Your task to perform on an android device: turn pop-ups off in chrome Image 0: 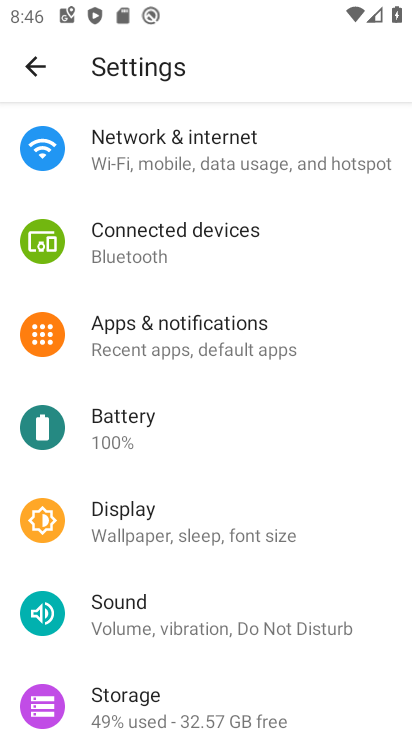
Step 0: press home button
Your task to perform on an android device: turn pop-ups off in chrome Image 1: 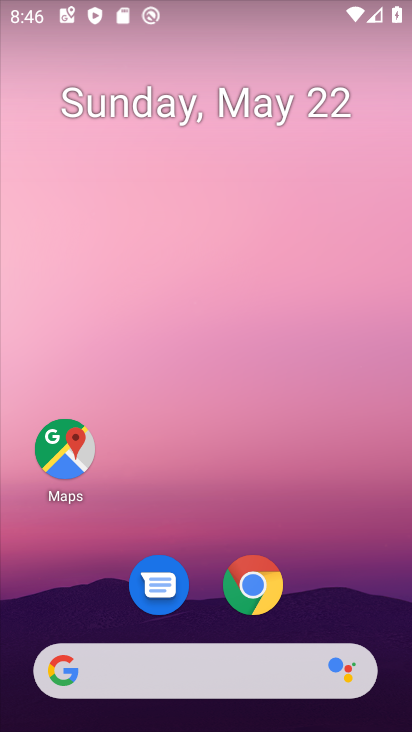
Step 1: click (251, 593)
Your task to perform on an android device: turn pop-ups off in chrome Image 2: 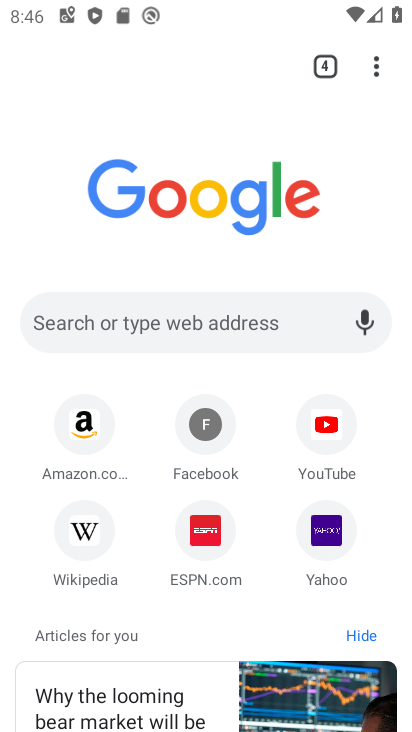
Step 2: click (374, 69)
Your task to perform on an android device: turn pop-ups off in chrome Image 3: 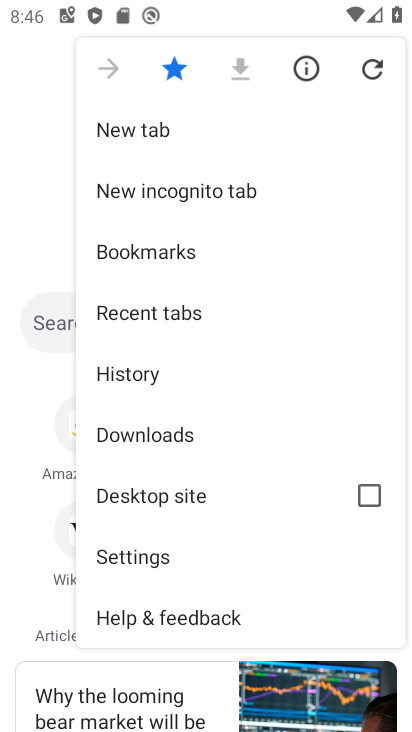
Step 3: click (143, 558)
Your task to perform on an android device: turn pop-ups off in chrome Image 4: 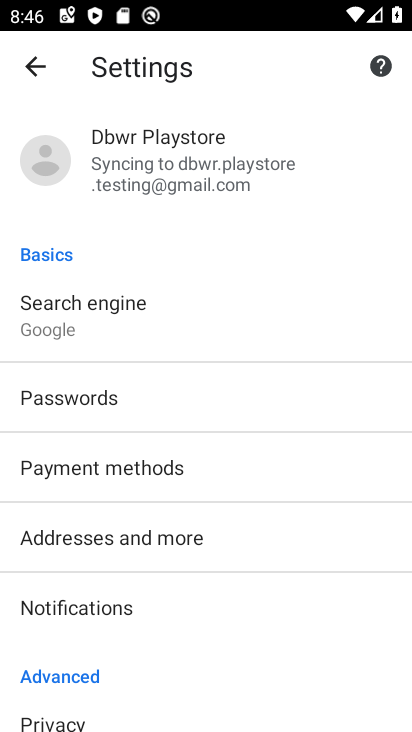
Step 4: drag from (278, 521) to (271, 173)
Your task to perform on an android device: turn pop-ups off in chrome Image 5: 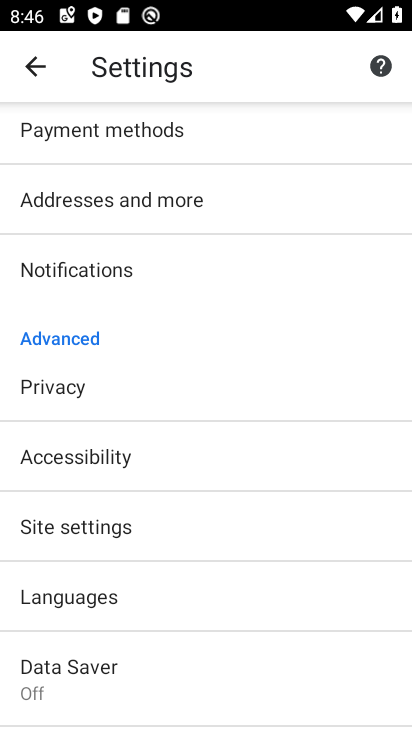
Step 5: click (144, 526)
Your task to perform on an android device: turn pop-ups off in chrome Image 6: 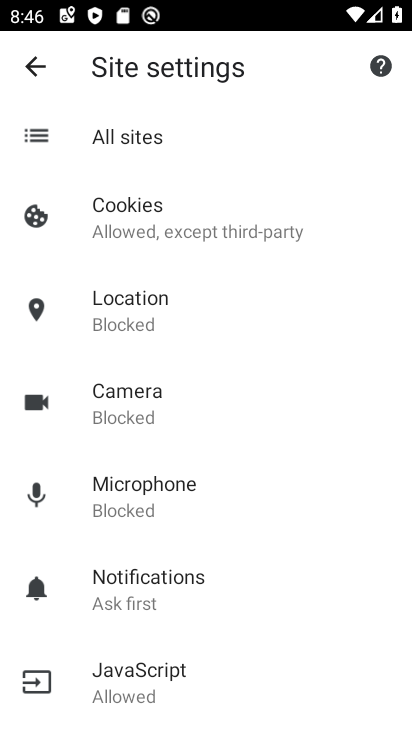
Step 6: drag from (241, 484) to (260, 210)
Your task to perform on an android device: turn pop-ups off in chrome Image 7: 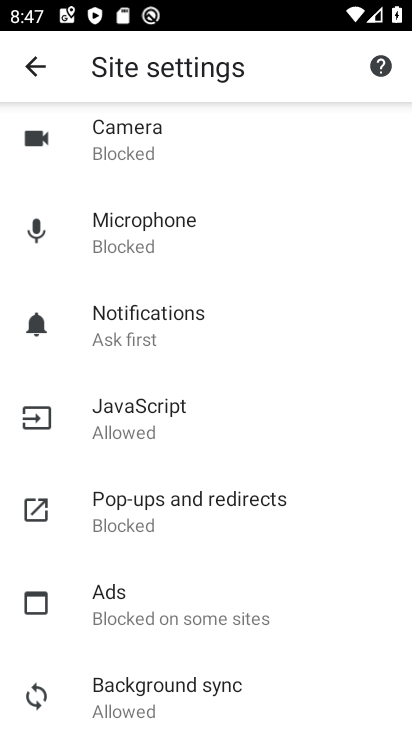
Step 7: click (202, 509)
Your task to perform on an android device: turn pop-ups off in chrome Image 8: 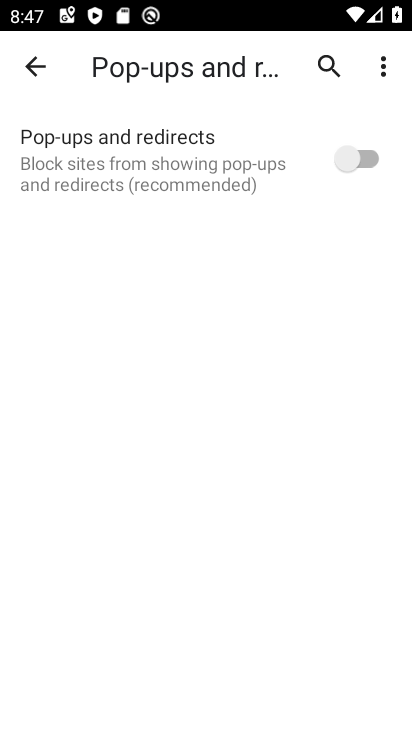
Step 8: task complete